Your task to perform on an android device: clear all cookies in the chrome app Image 0: 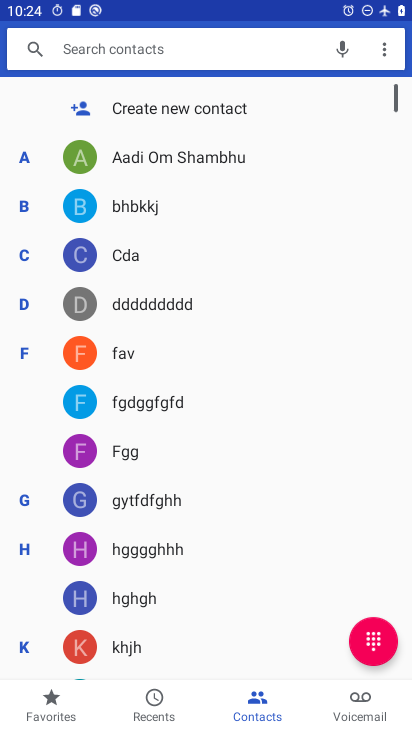
Step 0: press home button
Your task to perform on an android device: clear all cookies in the chrome app Image 1: 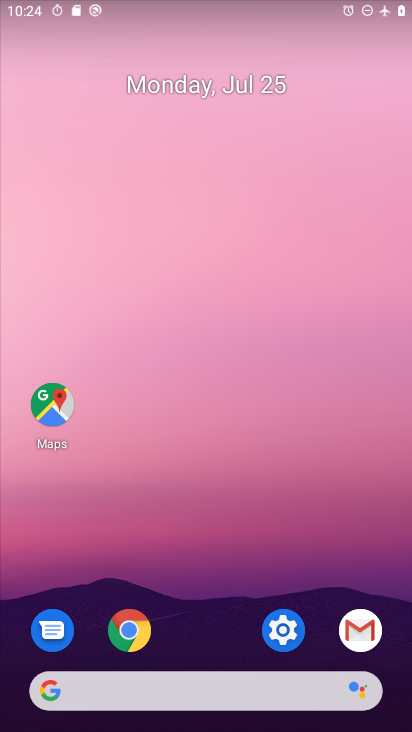
Step 1: click (106, 632)
Your task to perform on an android device: clear all cookies in the chrome app Image 2: 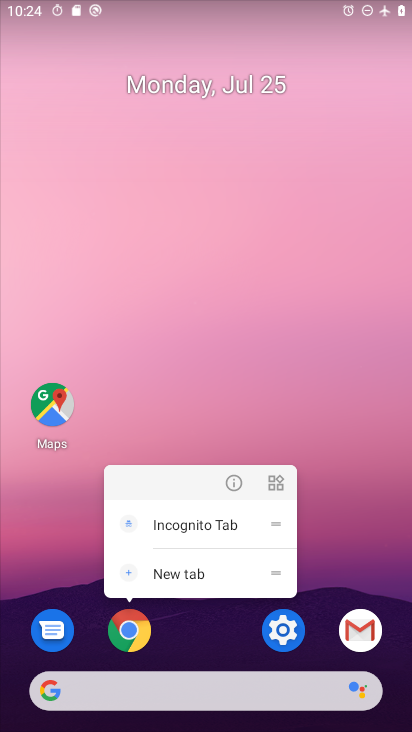
Step 2: click (146, 613)
Your task to perform on an android device: clear all cookies in the chrome app Image 3: 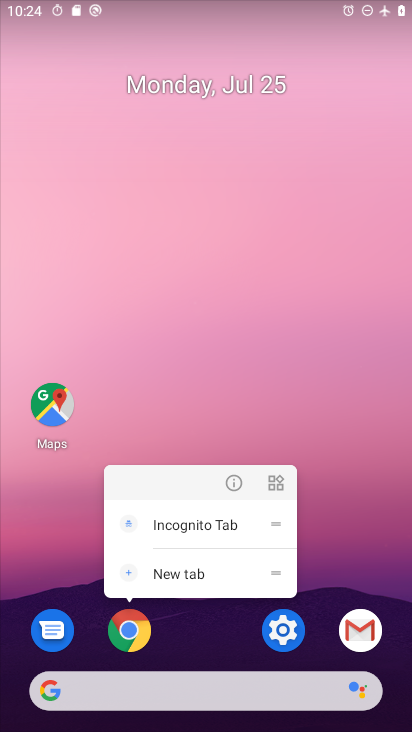
Step 3: click (135, 636)
Your task to perform on an android device: clear all cookies in the chrome app Image 4: 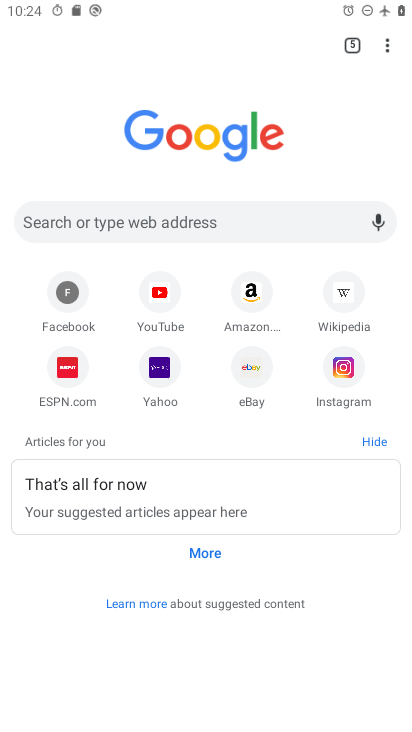
Step 4: click (379, 46)
Your task to perform on an android device: clear all cookies in the chrome app Image 5: 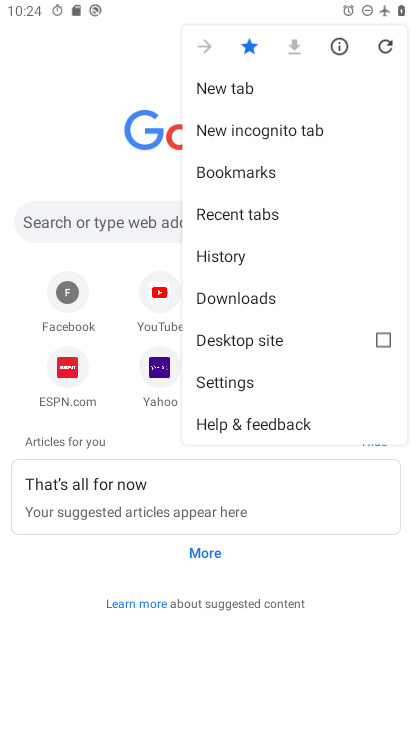
Step 5: click (201, 252)
Your task to perform on an android device: clear all cookies in the chrome app Image 6: 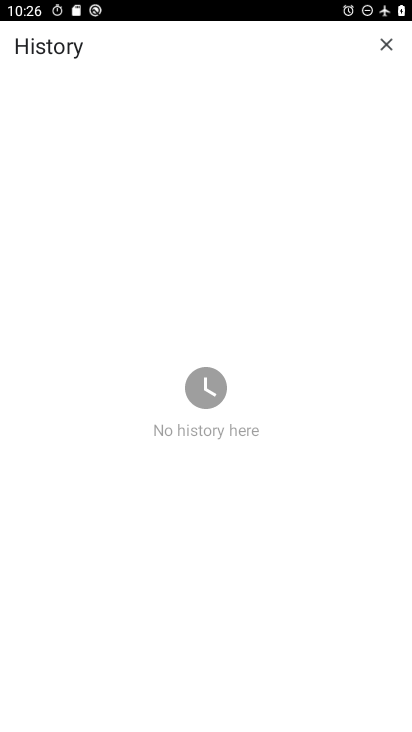
Step 6: task complete